Your task to perform on an android device: turn off smart reply in the gmail app Image 0: 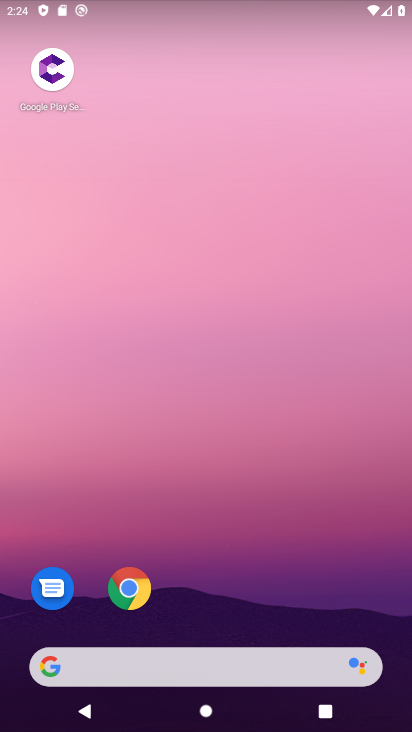
Step 0: drag from (188, 511) to (66, 3)
Your task to perform on an android device: turn off smart reply in the gmail app Image 1: 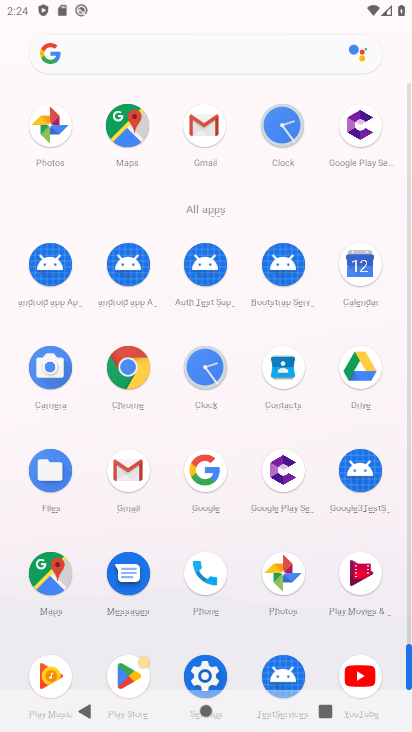
Step 1: drag from (245, 602) to (151, 32)
Your task to perform on an android device: turn off smart reply in the gmail app Image 2: 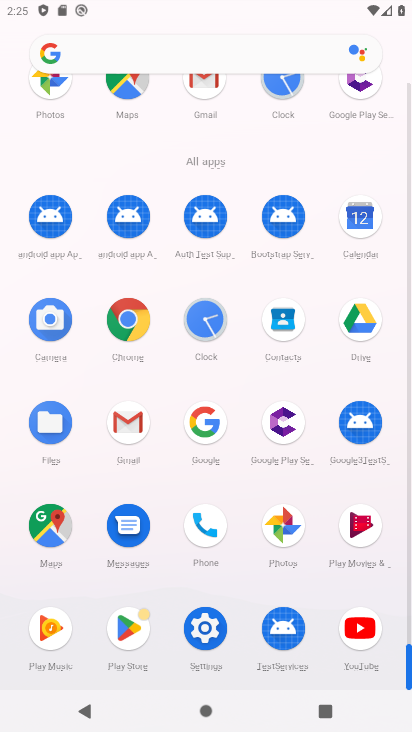
Step 2: click (210, 81)
Your task to perform on an android device: turn off smart reply in the gmail app Image 3: 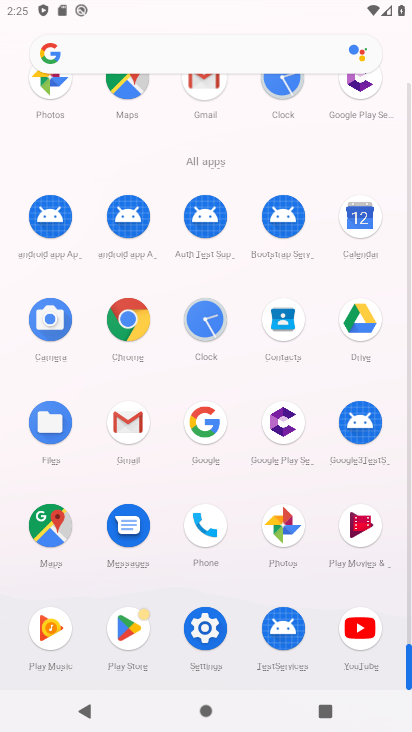
Step 3: click (210, 81)
Your task to perform on an android device: turn off smart reply in the gmail app Image 4: 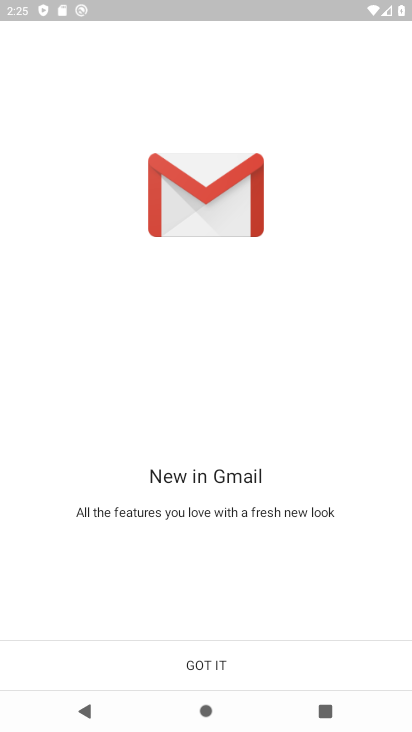
Step 4: click (210, 83)
Your task to perform on an android device: turn off smart reply in the gmail app Image 5: 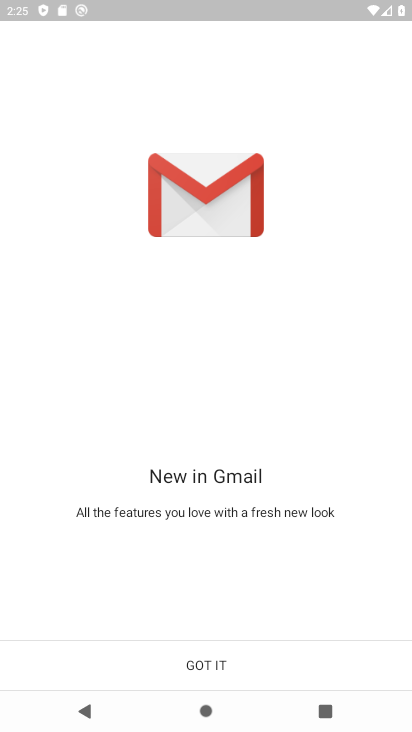
Step 5: click (223, 661)
Your task to perform on an android device: turn off smart reply in the gmail app Image 6: 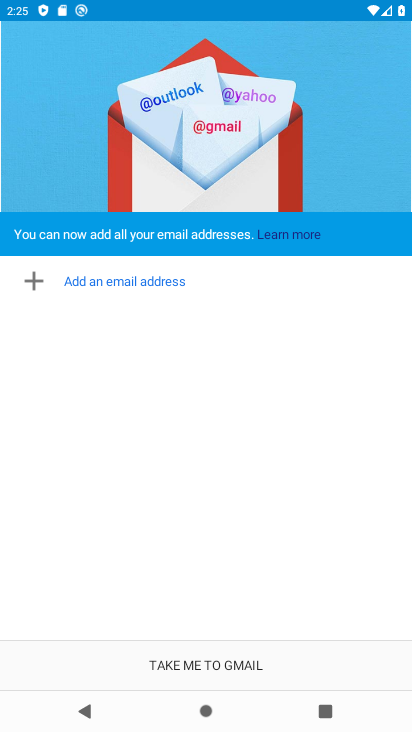
Step 6: click (223, 661)
Your task to perform on an android device: turn off smart reply in the gmail app Image 7: 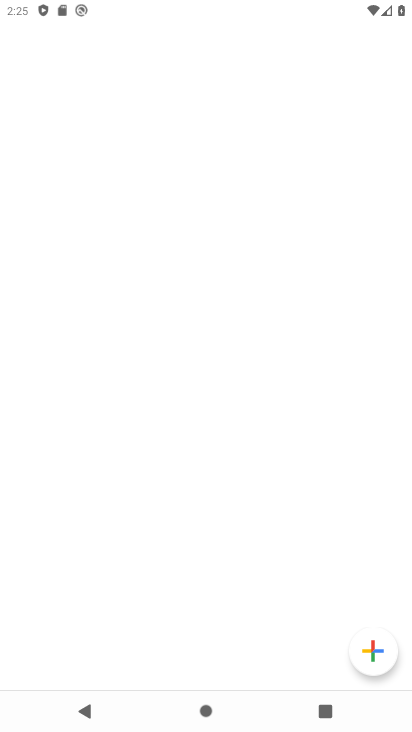
Step 7: click (237, 666)
Your task to perform on an android device: turn off smart reply in the gmail app Image 8: 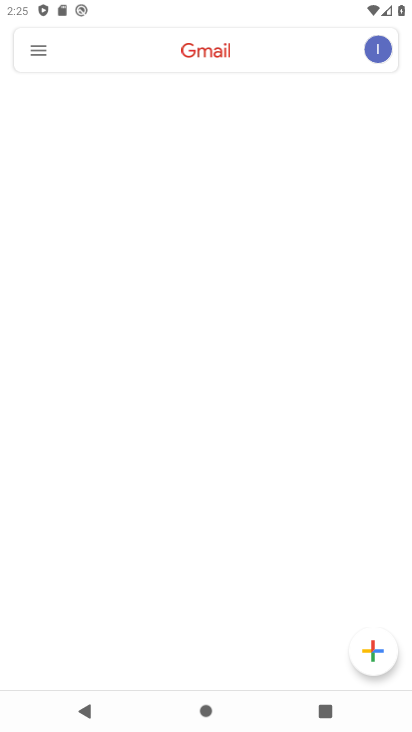
Step 8: click (235, 662)
Your task to perform on an android device: turn off smart reply in the gmail app Image 9: 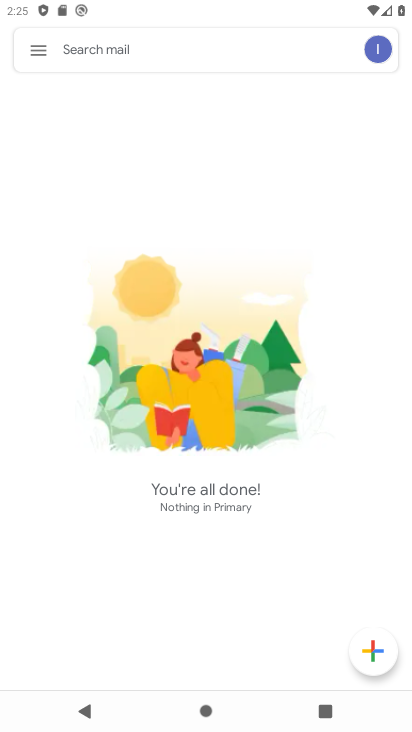
Step 9: click (55, 57)
Your task to perform on an android device: turn off smart reply in the gmail app Image 10: 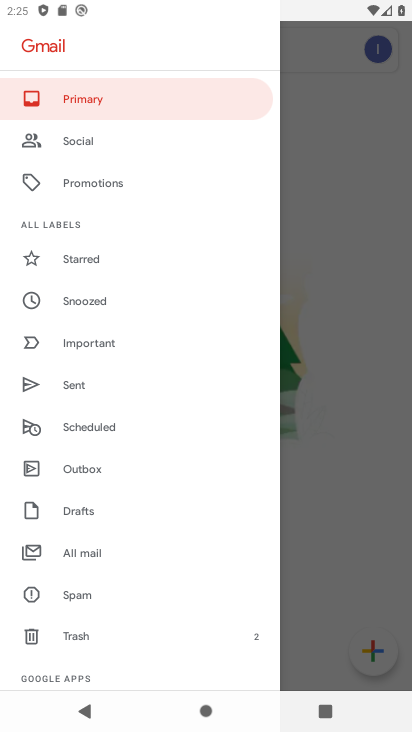
Step 10: drag from (75, 498) to (133, 116)
Your task to perform on an android device: turn off smart reply in the gmail app Image 11: 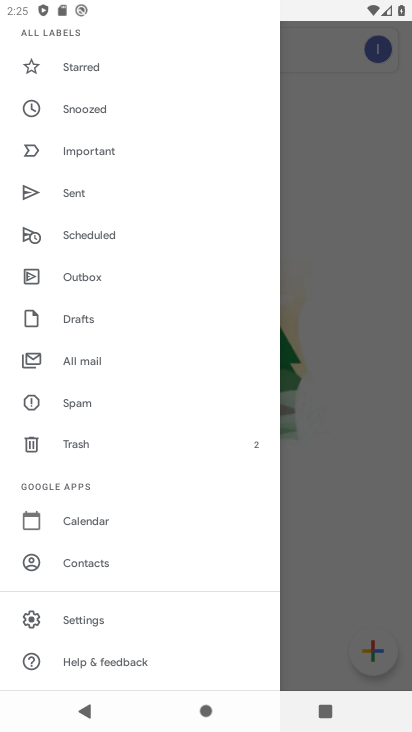
Step 11: click (92, 621)
Your task to perform on an android device: turn off smart reply in the gmail app Image 12: 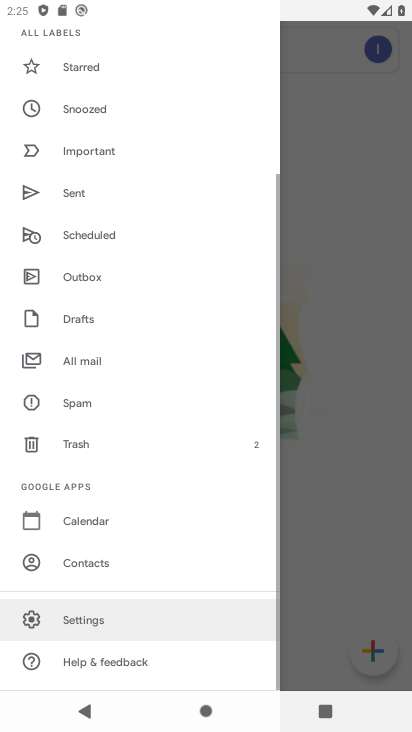
Step 12: click (92, 620)
Your task to perform on an android device: turn off smart reply in the gmail app Image 13: 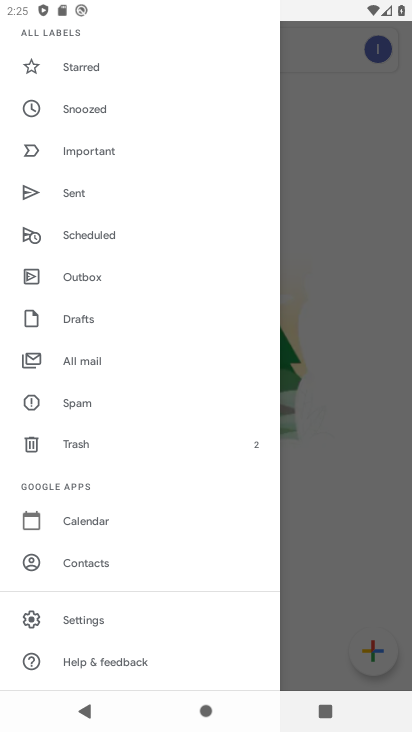
Step 13: click (61, 621)
Your task to perform on an android device: turn off smart reply in the gmail app Image 14: 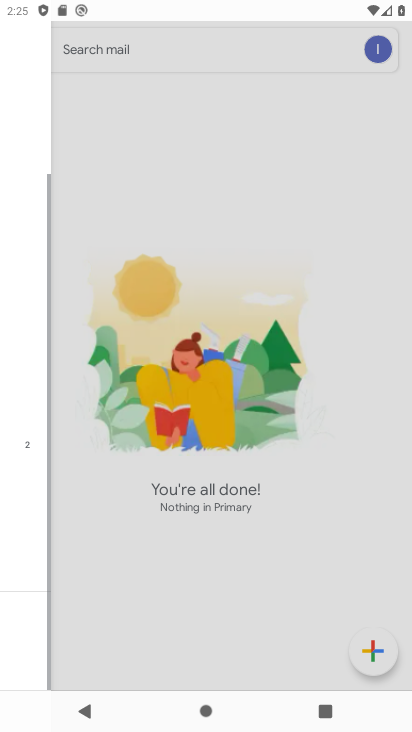
Step 14: click (76, 620)
Your task to perform on an android device: turn off smart reply in the gmail app Image 15: 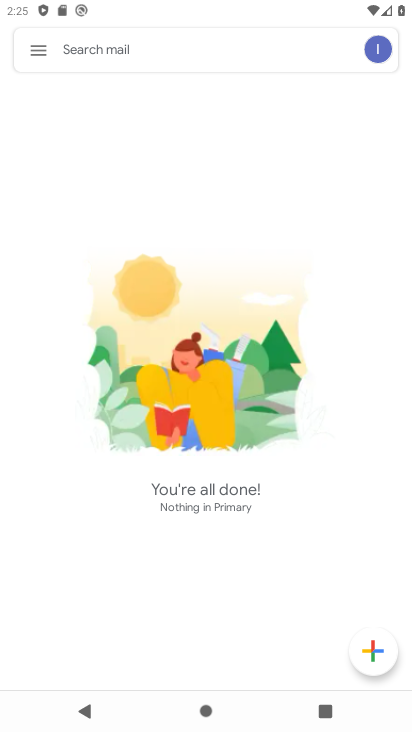
Step 15: click (75, 620)
Your task to perform on an android device: turn off smart reply in the gmail app Image 16: 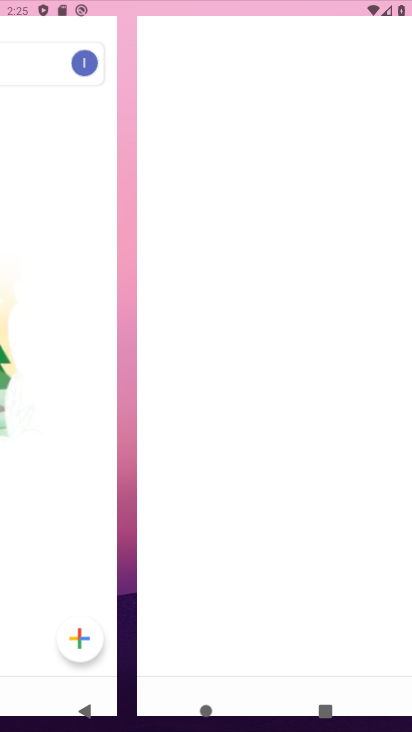
Step 16: click (75, 620)
Your task to perform on an android device: turn off smart reply in the gmail app Image 17: 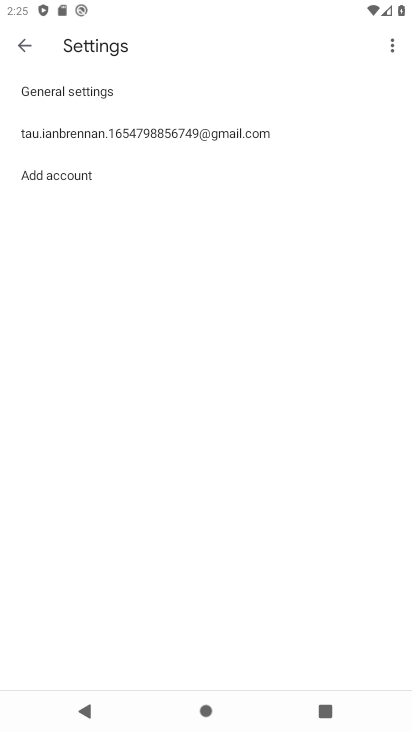
Step 17: click (87, 130)
Your task to perform on an android device: turn off smart reply in the gmail app Image 18: 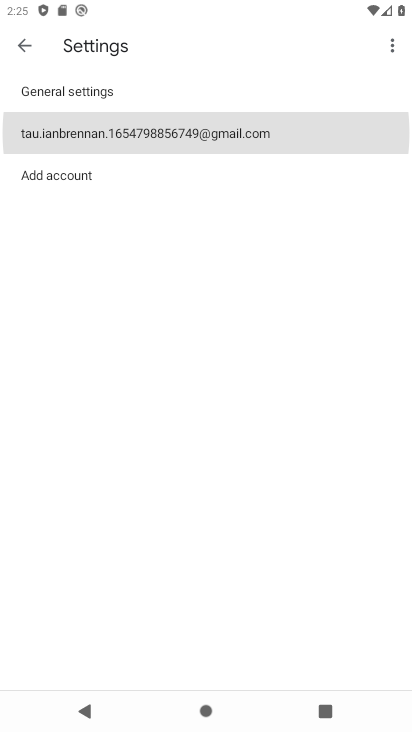
Step 18: click (84, 129)
Your task to perform on an android device: turn off smart reply in the gmail app Image 19: 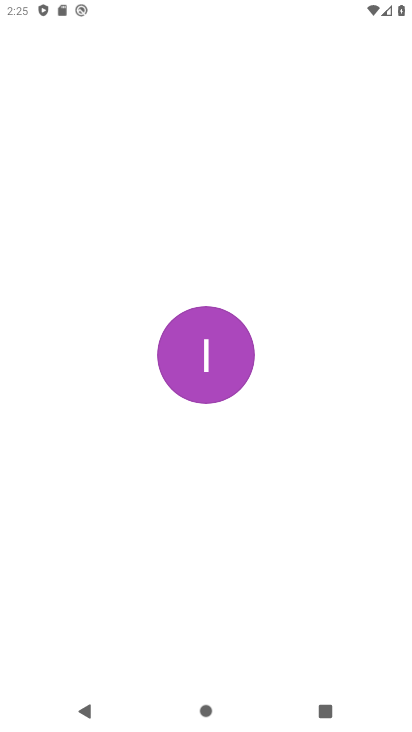
Step 19: press back button
Your task to perform on an android device: turn off smart reply in the gmail app Image 20: 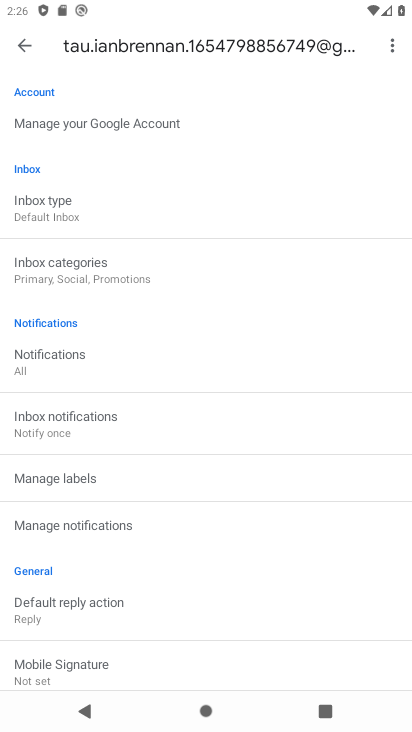
Step 20: drag from (81, 485) to (37, 141)
Your task to perform on an android device: turn off smart reply in the gmail app Image 21: 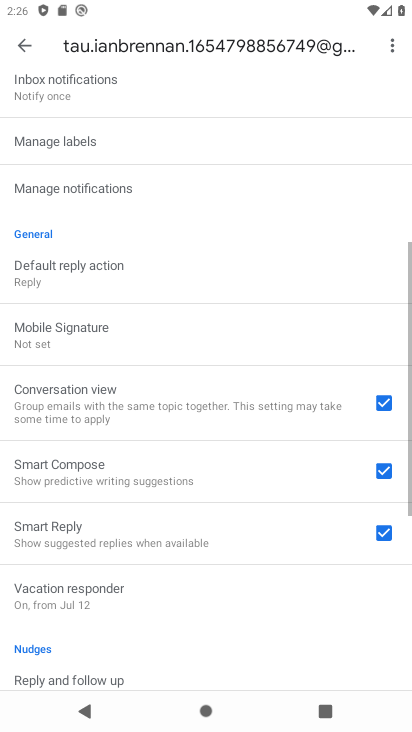
Step 21: drag from (135, 486) to (84, 231)
Your task to perform on an android device: turn off smart reply in the gmail app Image 22: 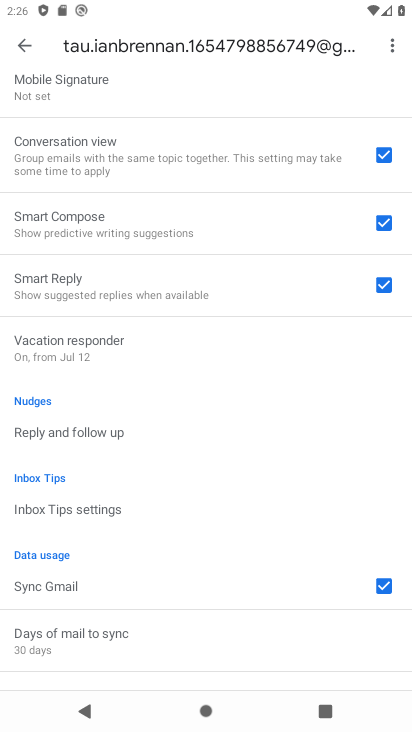
Step 22: click (57, 291)
Your task to perform on an android device: turn off smart reply in the gmail app Image 23: 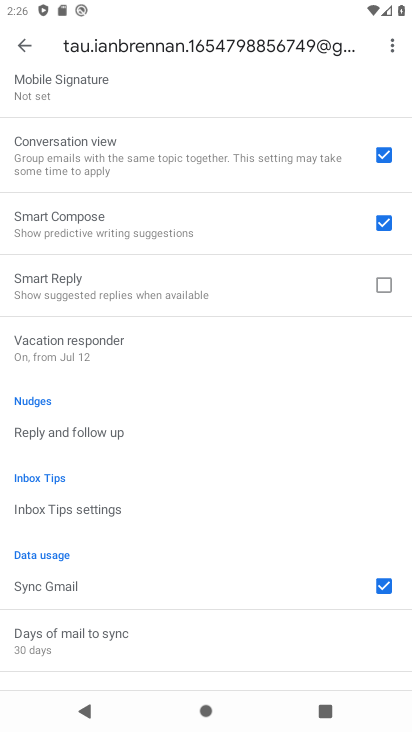
Step 23: task complete